Your task to perform on an android device: Open internet settings Image 0: 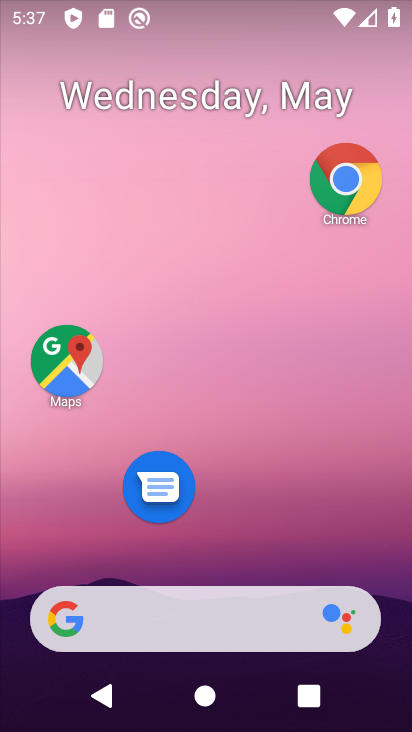
Step 0: drag from (206, 557) to (171, 0)
Your task to perform on an android device: Open internet settings Image 1: 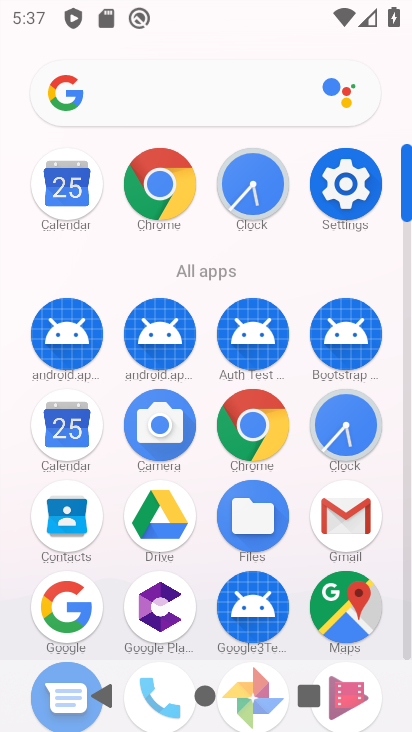
Step 1: click (331, 191)
Your task to perform on an android device: Open internet settings Image 2: 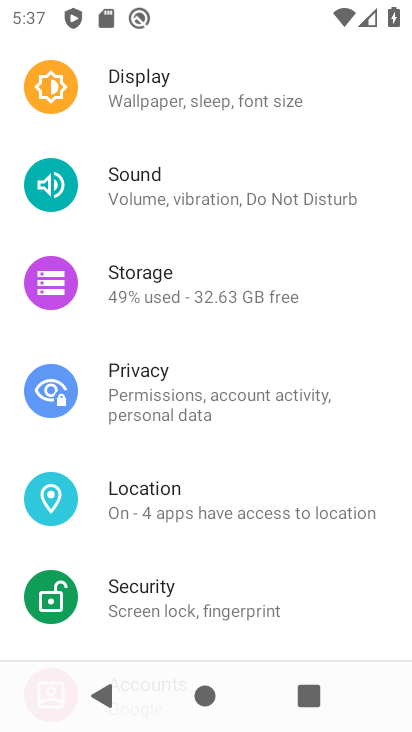
Step 2: drag from (219, 553) to (220, 196)
Your task to perform on an android device: Open internet settings Image 3: 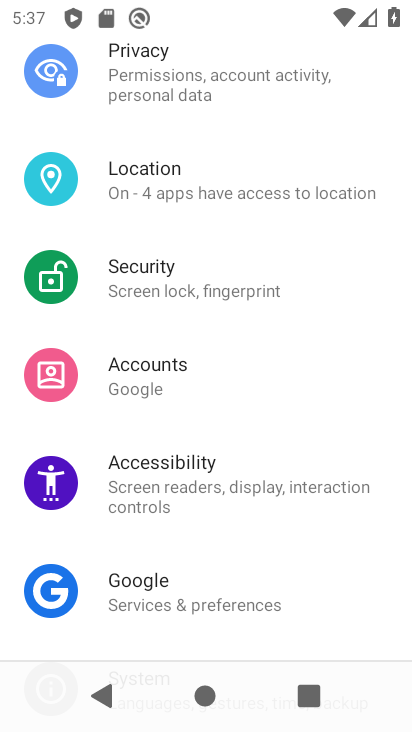
Step 3: drag from (201, 604) to (220, 419)
Your task to perform on an android device: Open internet settings Image 4: 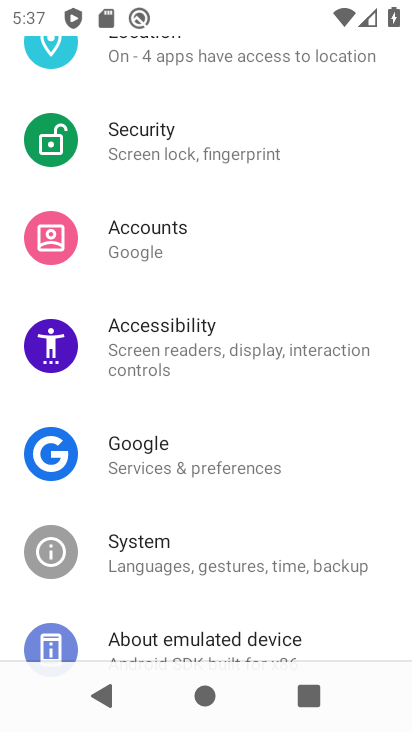
Step 4: drag from (201, 191) to (201, 731)
Your task to perform on an android device: Open internet settings Image 5: 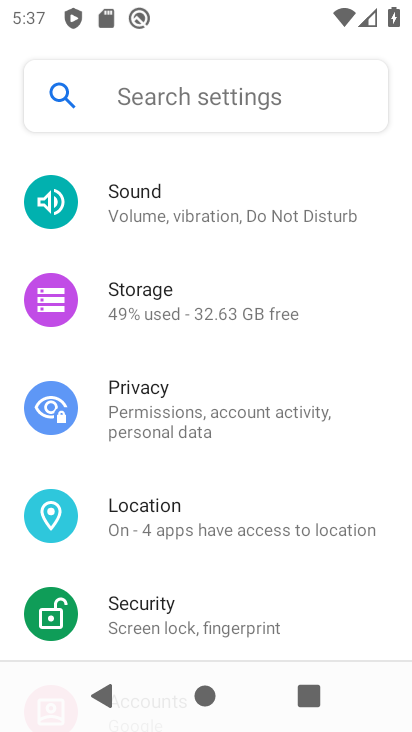
Step 5: drag from (201, 243) to (199, 690)
Your task to perform on an android device: Open internet settings Image 6: 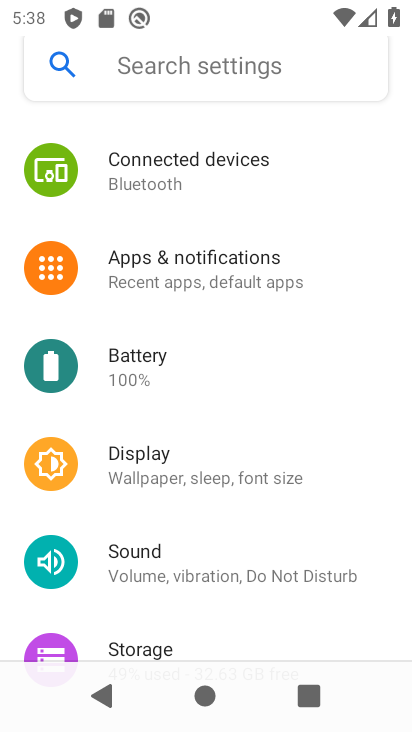
Step 6: drag from (147, 192) to (149, 571)
Your task to perform on an android device: Open internet settings Image 7: 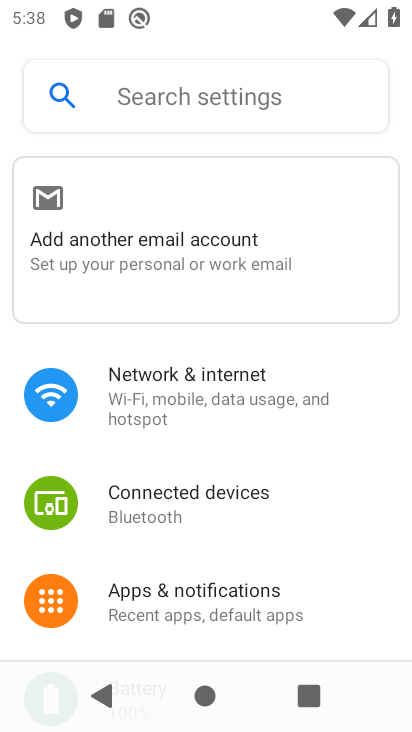
Step 7: click (153, 370)
Your task to perform on an android device: Open internet settings Image 8: 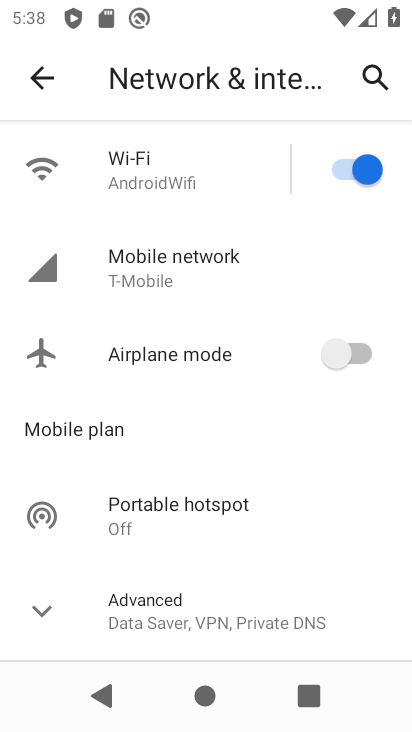
Step 8: task complete